Your task to perform on an android device: Open calendar and show me the second week of next month Image 0: 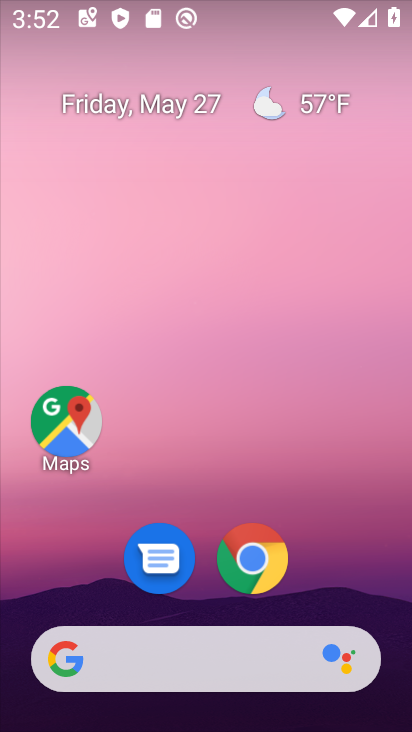
Step 0: press home button
Your task to perform on an android device: Open calendar and show me the second week of next month Image 1: 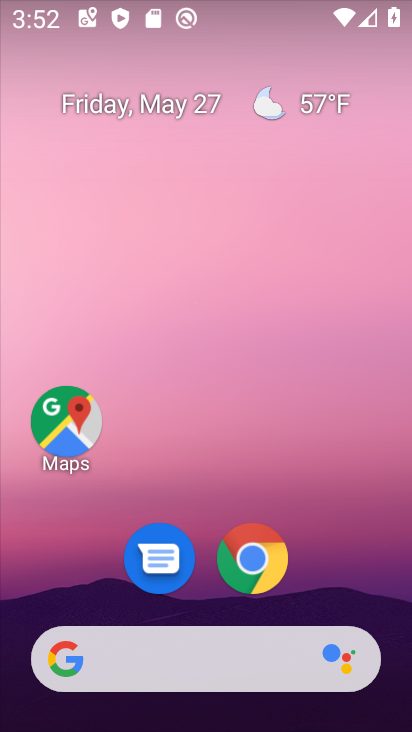
Step 1: drag from (353, 576) to (309, 126)
Your task to perform on an android device: Open calendar and show me the second week of next month Image 2: 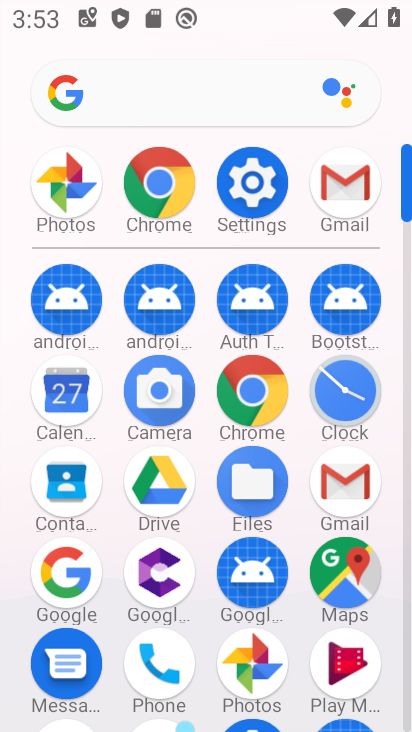
Step 2: click (59, 373)
Your task to perform on an android device: Open calendar and show me the second week of next month Image 3: 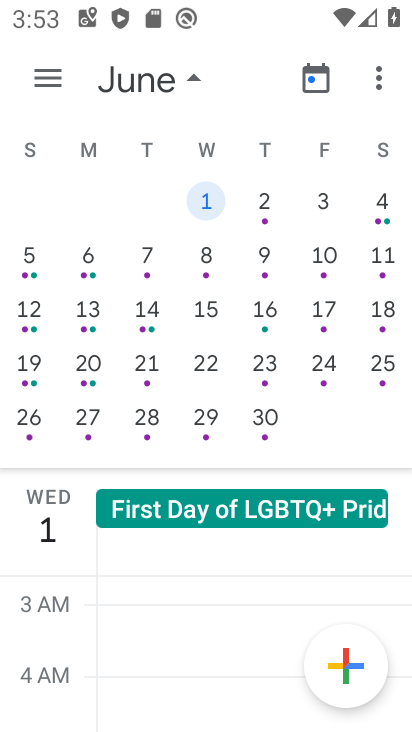
Step 3: click (268, 309)
Your task to perform on an android device: Open calendar and show me the second week of next month Image 4: 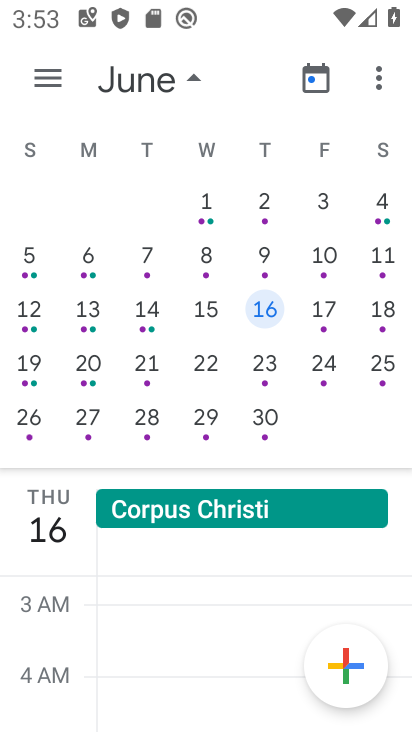
Step 4: task complete